Your task to perform on an android device: Go to network settings Image 0: 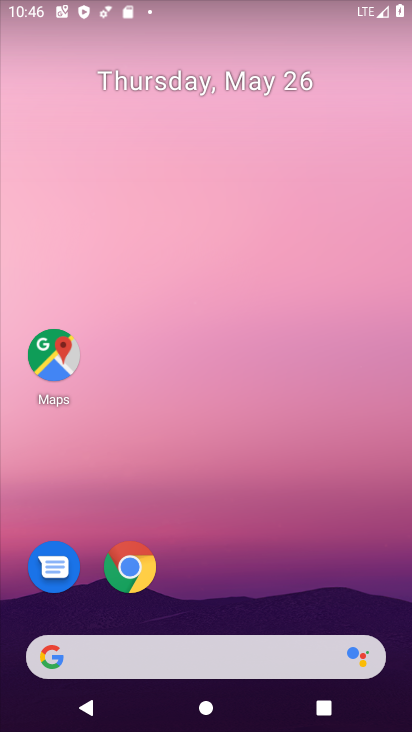
Step 0: drag from (238, 710) to (250, 161)
Your task to perform on an android device: Go to network settings Image 1: 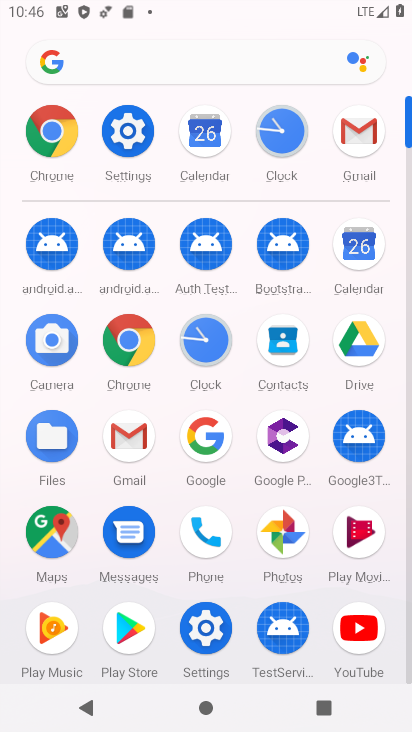
Step 1: click (106, 125)
Your task to perform on an android device: Go to network settings Image 2: 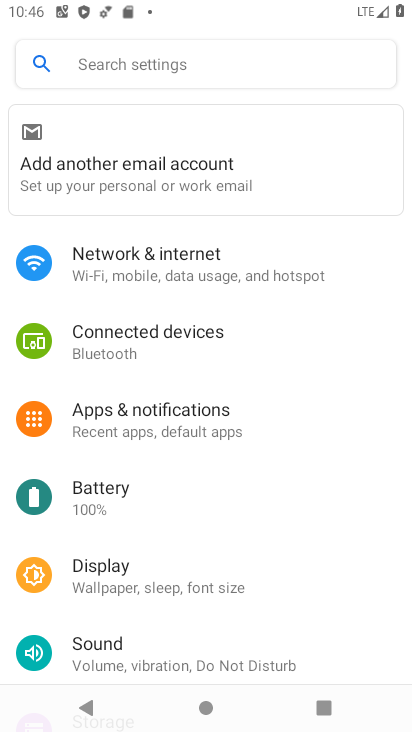
Step 2: click (223, 261)
Your task to perform on an android device: Go to network settings Image 3: 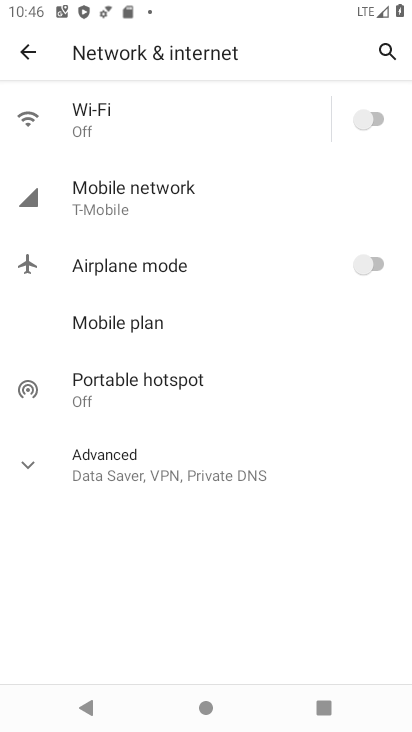
Step 3: task complete